Your task to perform on an android device: change the clock style Image 0: 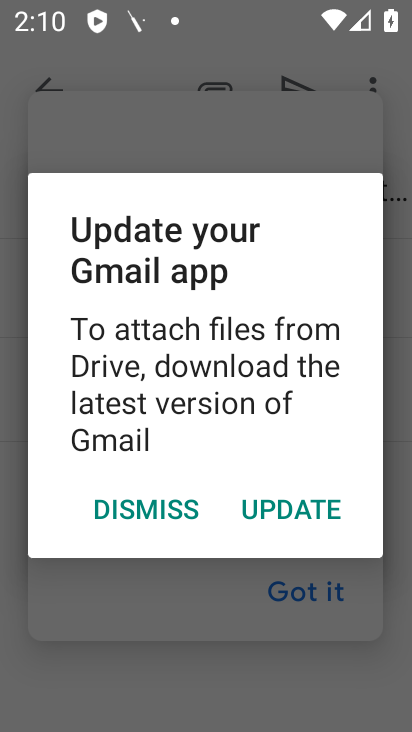
Step 0: press home button
Your task to perform on an android device: change the clock style Image 1: 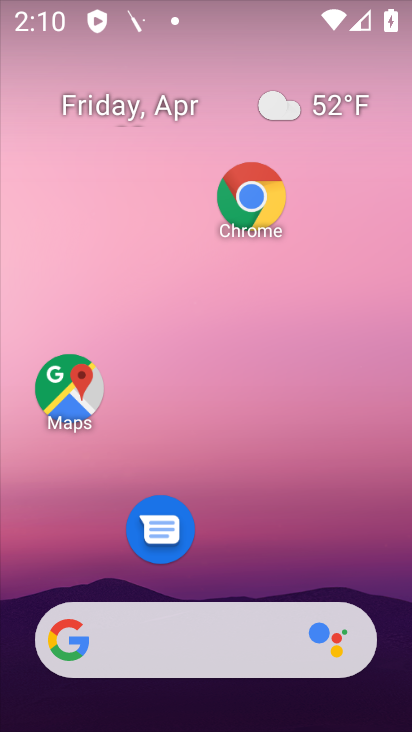
Step 1: drag from (321, 494) to (364, 133)
Your task to perform on an android device: change the clock style Image 2: 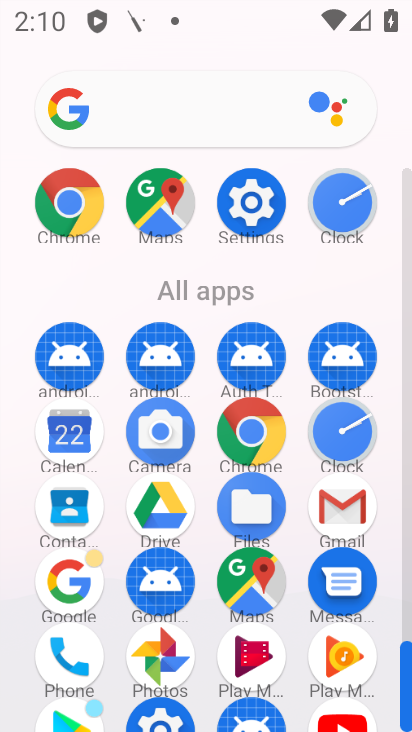
Step 2: click (357, 199)
Your task to perform on an android device: change the clock style Image 3: 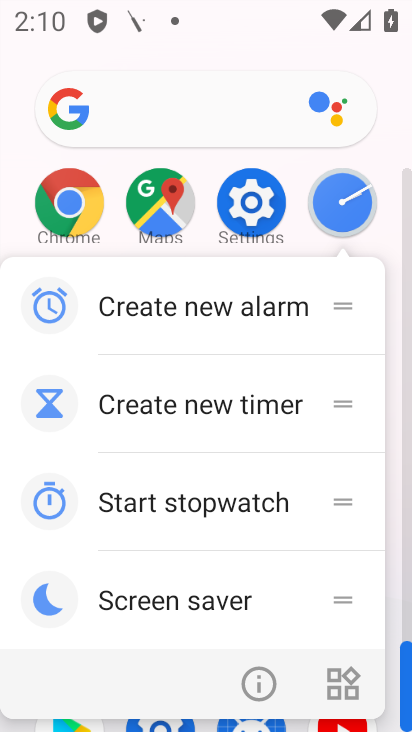
Step 3: click (356, 200)
Your task to perform on an android device: change the clock style Image 4: 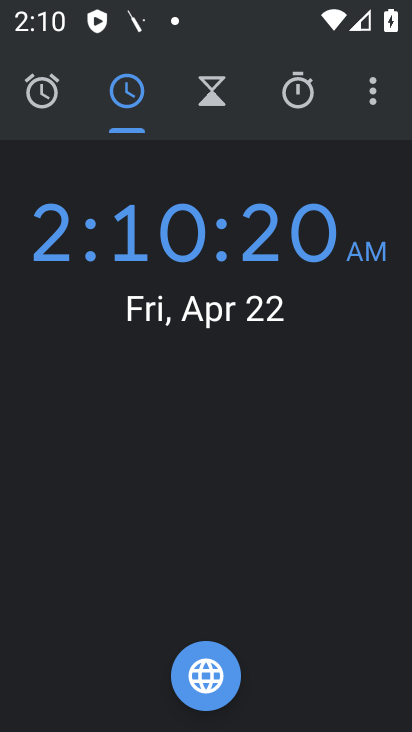
Step 4: click (377, 109)
Your task to perform on an android device: change the clock style Image 5: 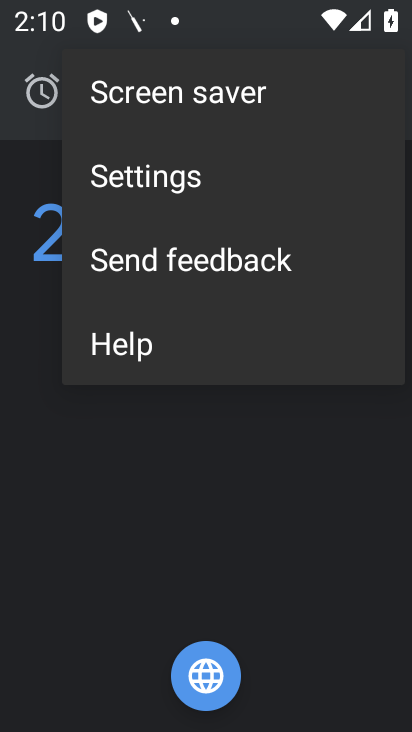
Step 5: click (219, 168)
Your task to perform on an android device: change the clock style Image 6: 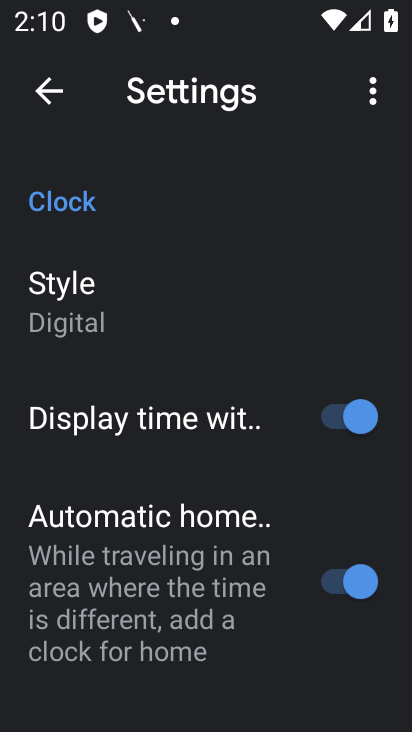
Step 6: click (136, 291)
Your task to perform on an android device: change the clock style Image 7: 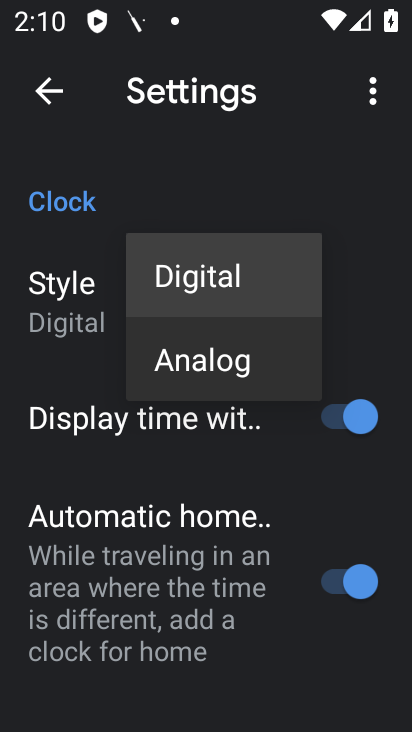
Step 7: click (209, 339)
Your task to perform on an android device: change the clock style Image 8: 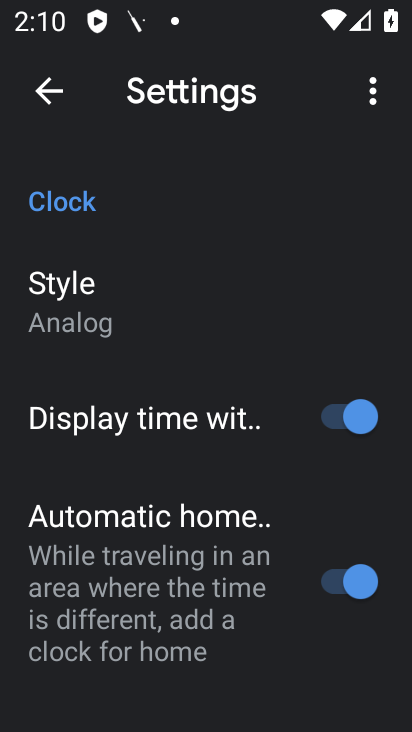
Step 8: task complete